Your task to perform on an android device: toggle wifi Image 0: 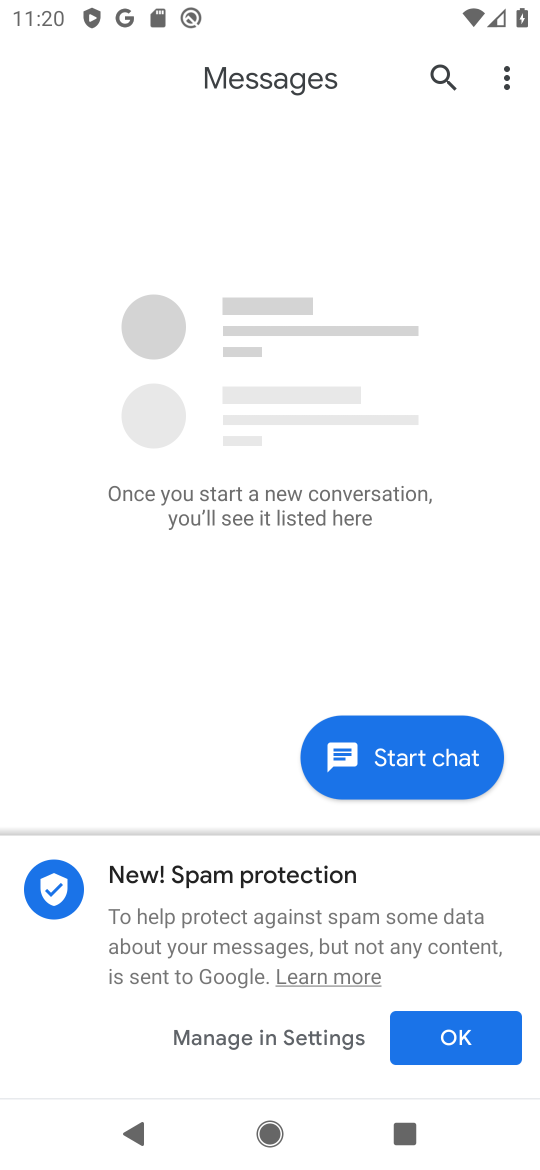
Step 0: press home button
Your task to perform on an android device: toggle wifi Image 1: 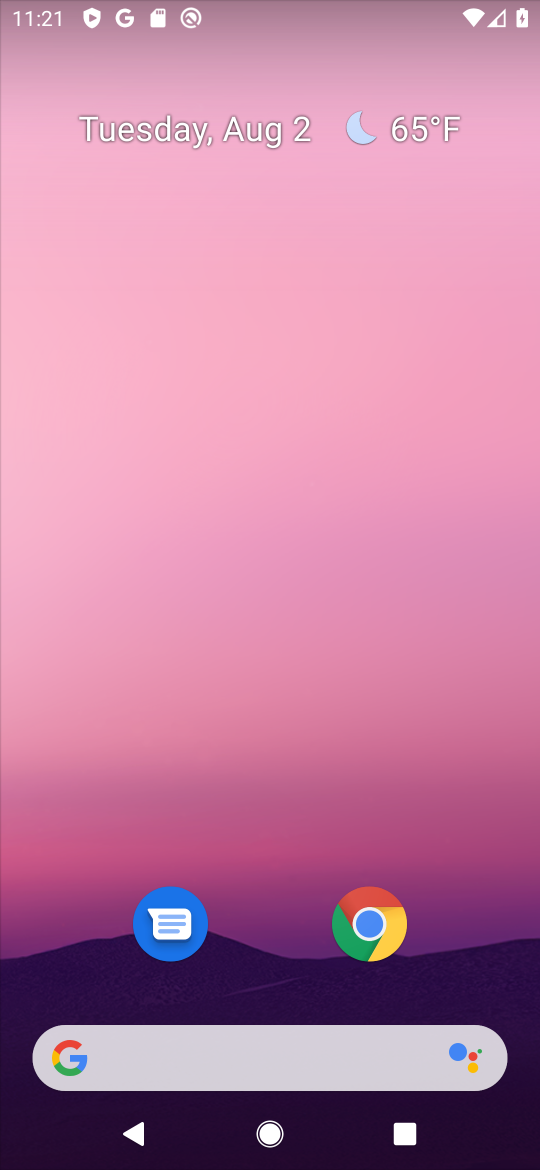
Step 1: drag from (266, 932) to (368, 268)
Your task to perform on an android device: toggle wifi Image 2: 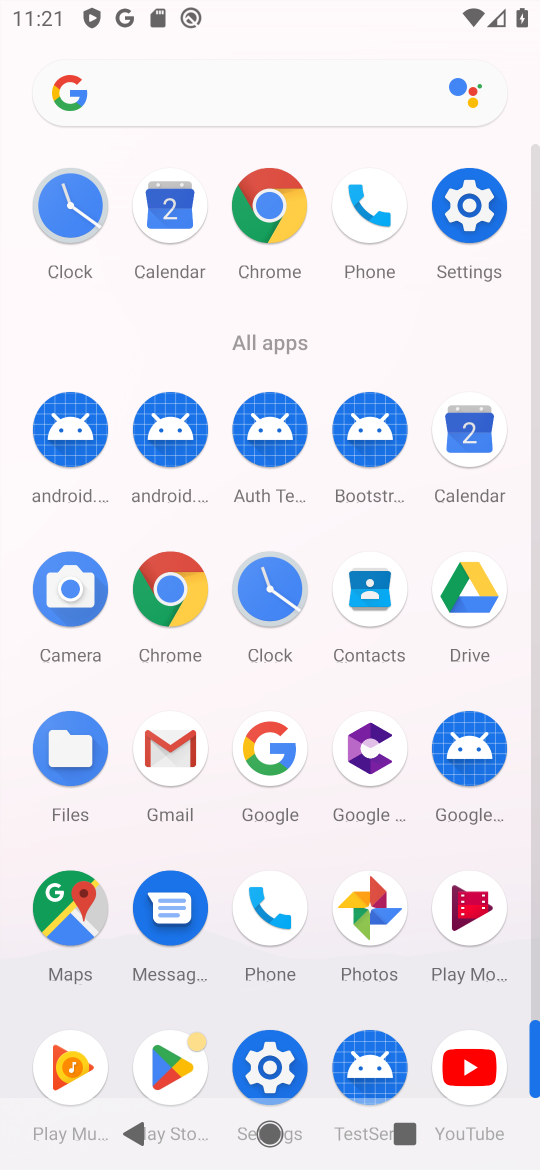
Step 2: click (481, 217)
Your task to perform on an android device: toggle wifi Image 3: 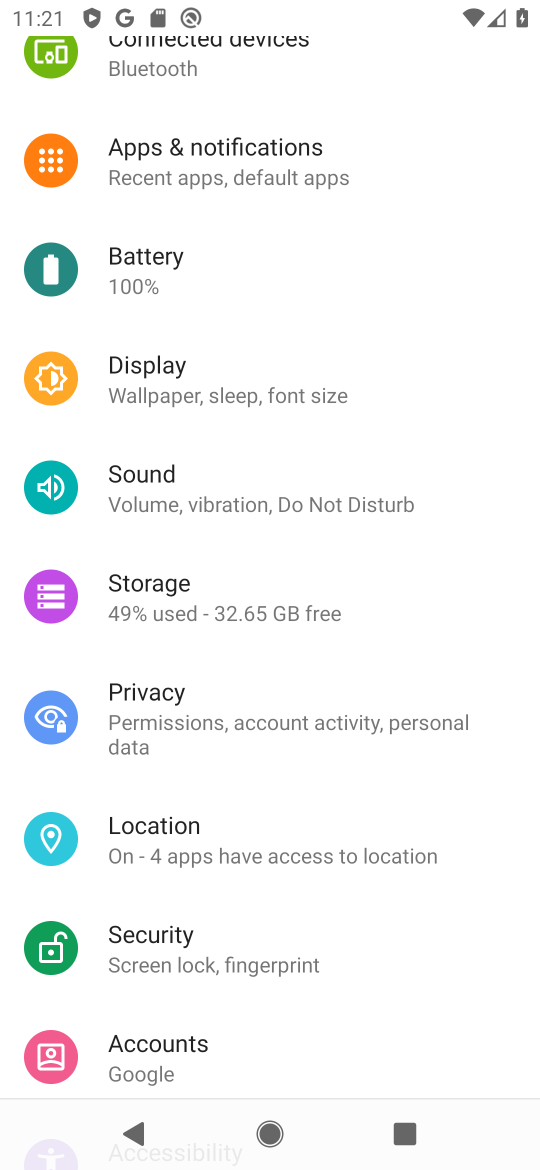
Step 3: drag from (270, 225) to (304, 1027)
Your task to perform on an android device: toggle wifi Image 4: 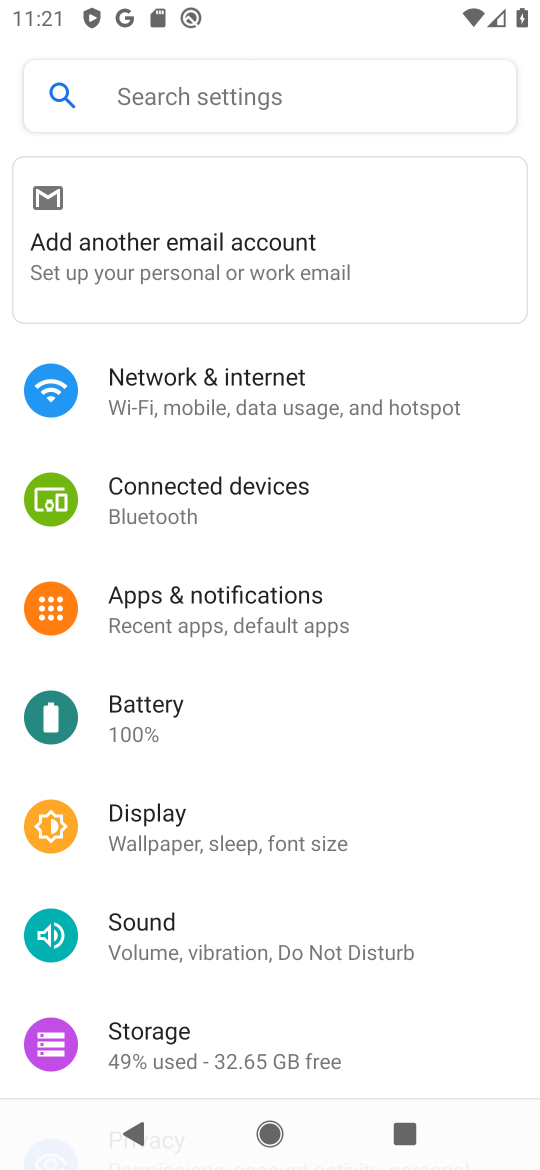
Step 4: click (262, 391)
Your task to perform on an android device: toggle wifi Image 5: 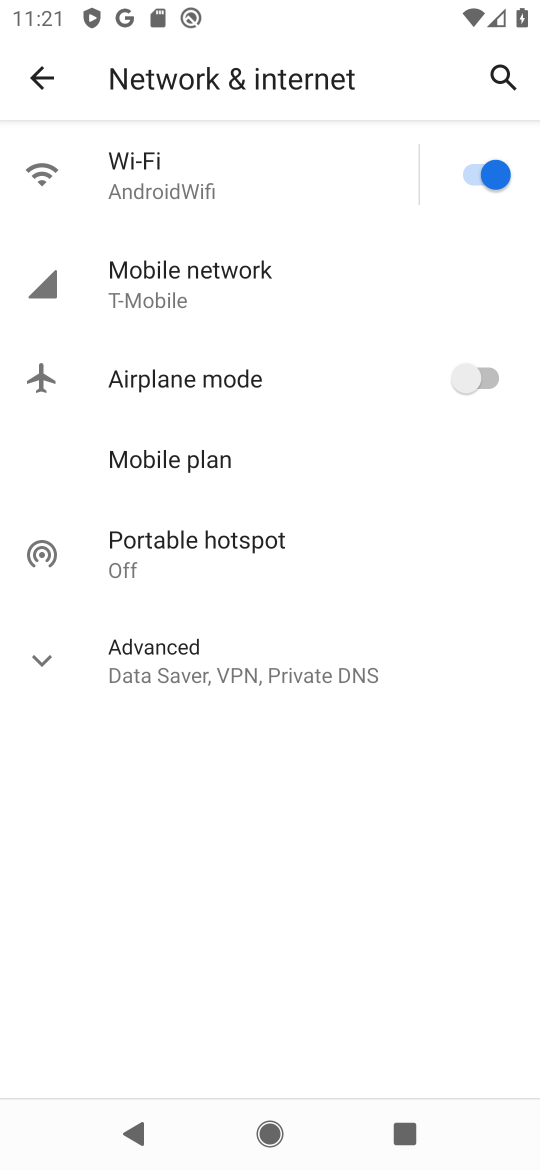
Step 5: click (207, 185)
Your task to perform on an android device: toggle wifi Image 6: 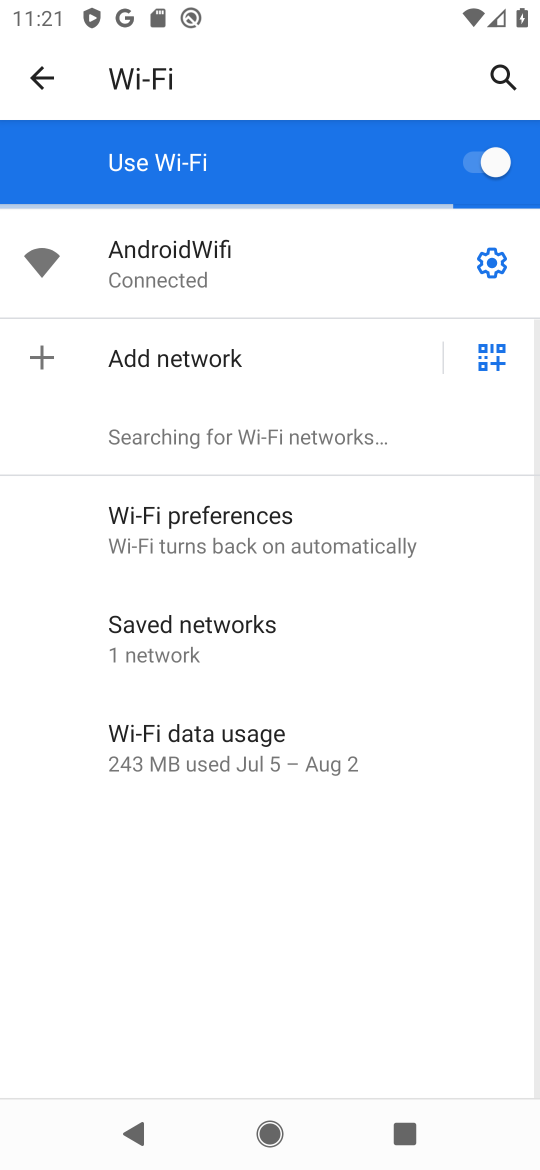
Step 6: click (484, 179)
Your task to perform on an android device: toggle wifi Image 7: 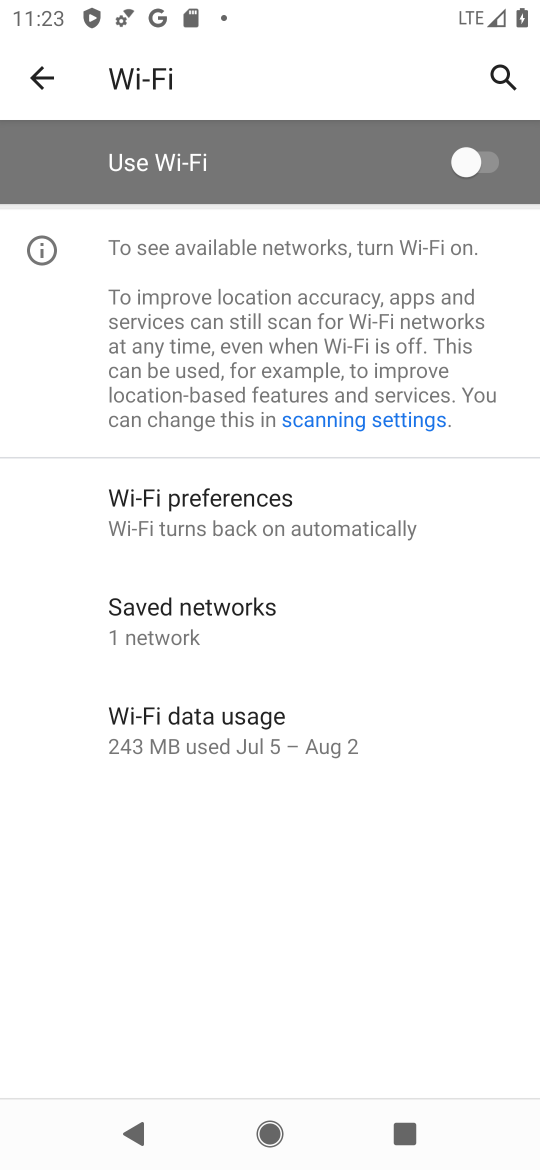
Step 7: task complete